Your task to perform on an android device: change the clock display to show seconds Image 0: 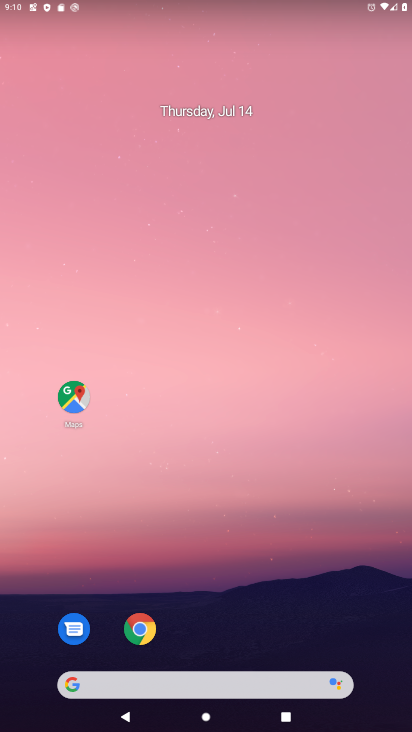
Step 0: drag from (233, 627) to (315, 19)
Your task to perform on an android device: change the clock display to show seconds Image 1: 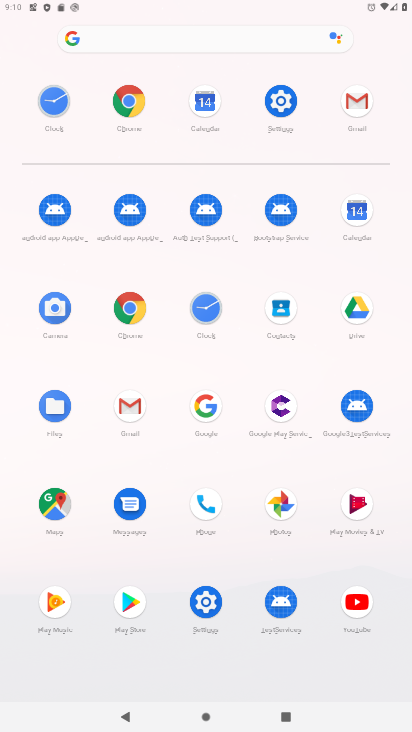
Step 1: click (203, 312)
Your task to perform on an android device: change the clock display to show seconds Image 2: 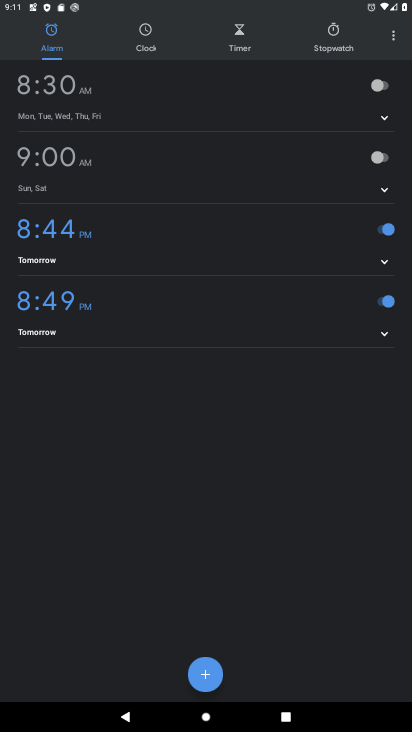
Step 2: click (389, 44)
Your task to perform on an android device: change the clock display to show seconds Image 3: 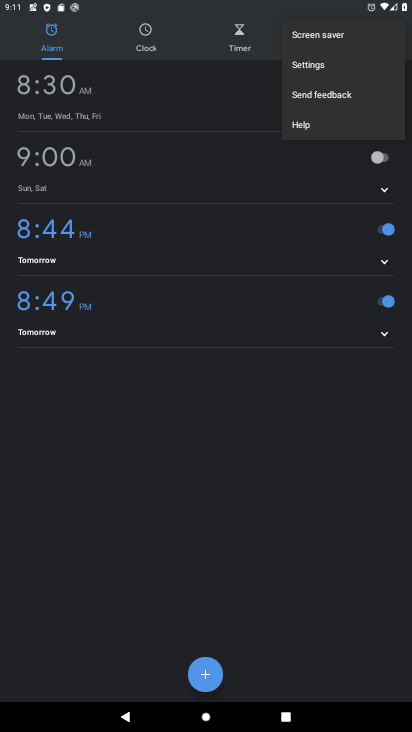
Step 3: click (322, 64)
Your task to perform on an android device: change the clock display to show seconds Image 4: 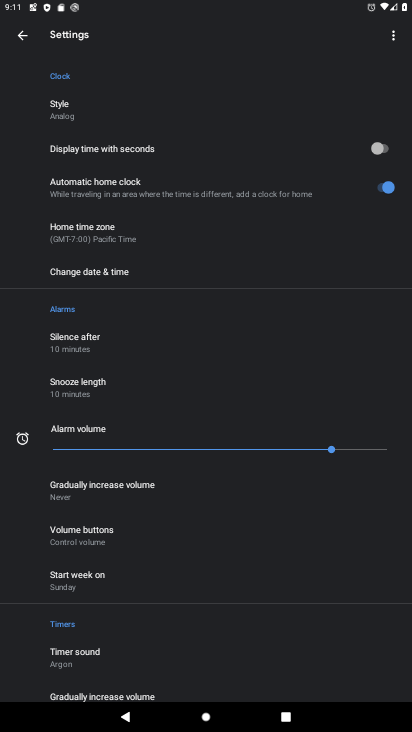
Step 4: click (381, 145)
Your task to perform on an android device: change the clock display to show seconds Image 5: 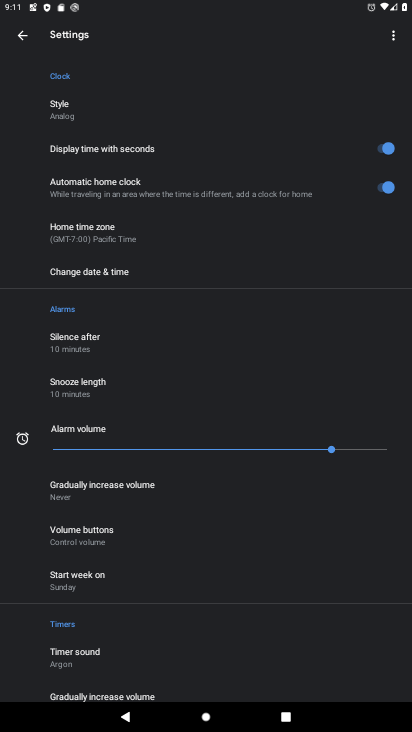
Step 5: task complete